Your task to perform on an android device: Open calendar and show me the third week of next month Image 0: 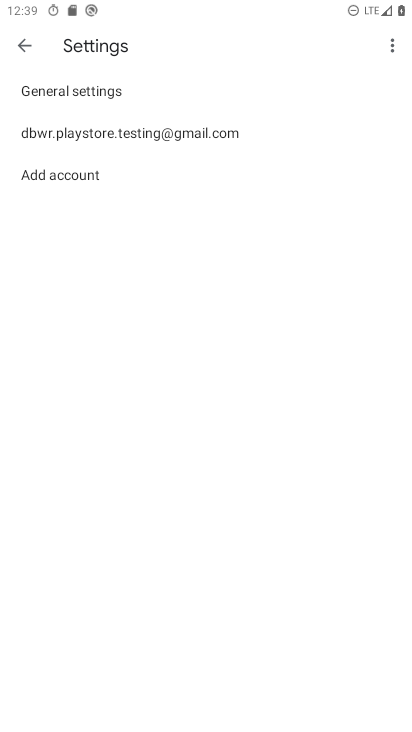
Step 0: drag from (280, 679) to (335, 160)
Your task to perform on an android device: Open calendar and show me the third week of next month Image 1: 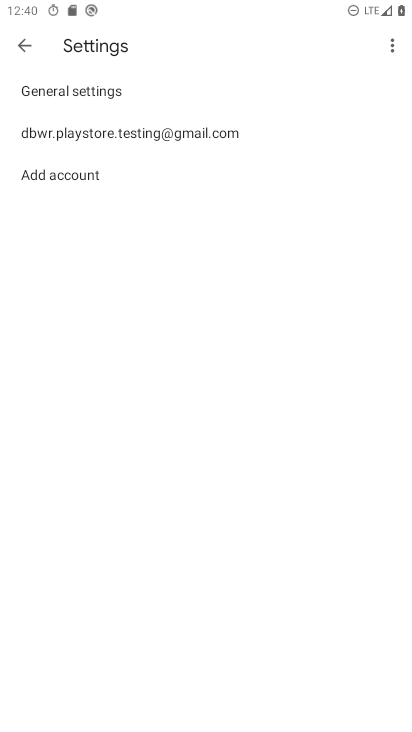
Step 1: press home button
Your task to perform on an android device: Open calendar and show me the third week of next month Image 2: 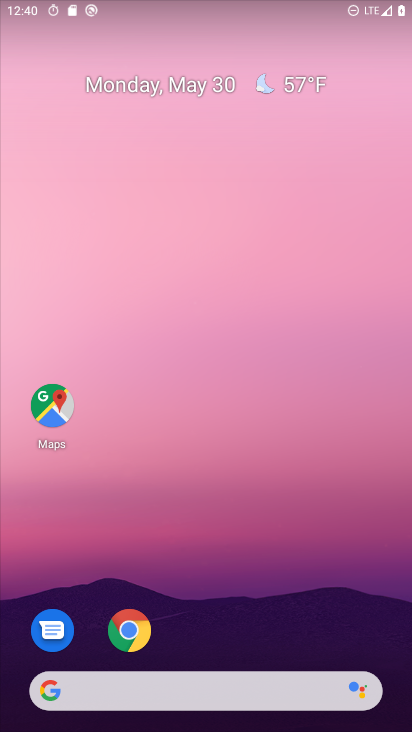
Step 2: drag from (242, 685) to (324, 123)
Your task to perform on an android device: Open calendar and show me the third week of next month Image 3: 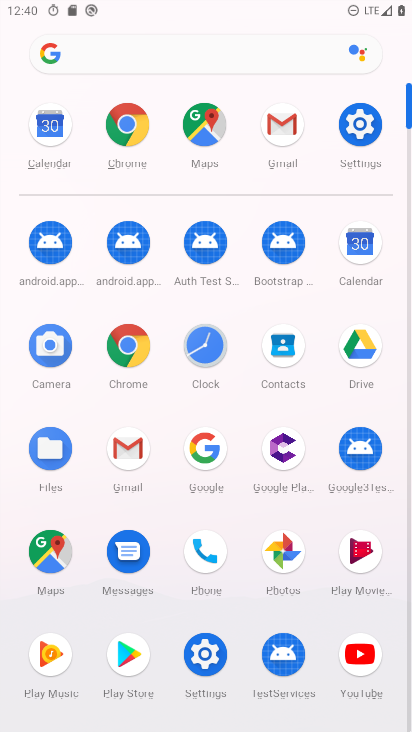
Step 3: click (355, 250)
Your task to perform on an android device: Open calendar and show me the third week of next month Image 4: 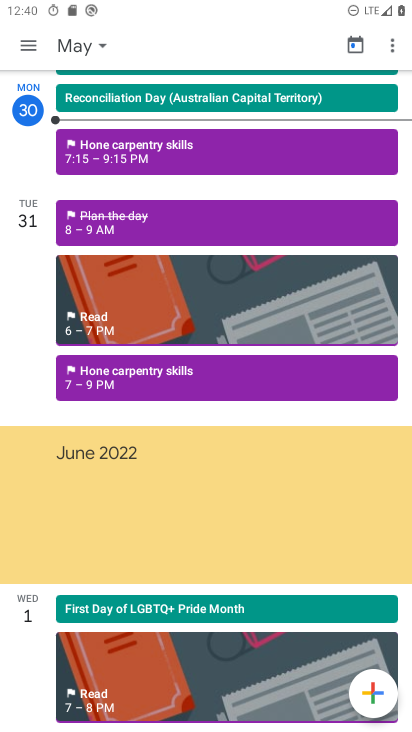
Step 4: click (23, 46)
Your task to perform on an android device: Open calendar and show me the third week of next month Image 5: 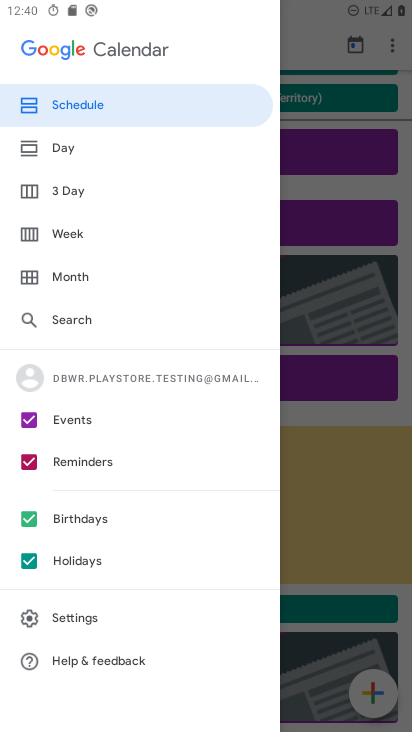
Step 5: click (67, 280)
Your task to perform on an android device: Open calendar and show me the third week of next month Image 6: 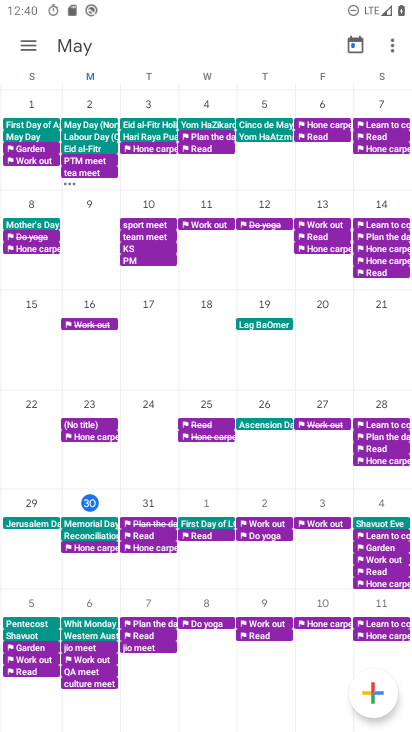
Step 6: drag from (365, 390) to (0, 305)
Your task to perform on an android device: Open calendar and show me the third week of next month Image 7: 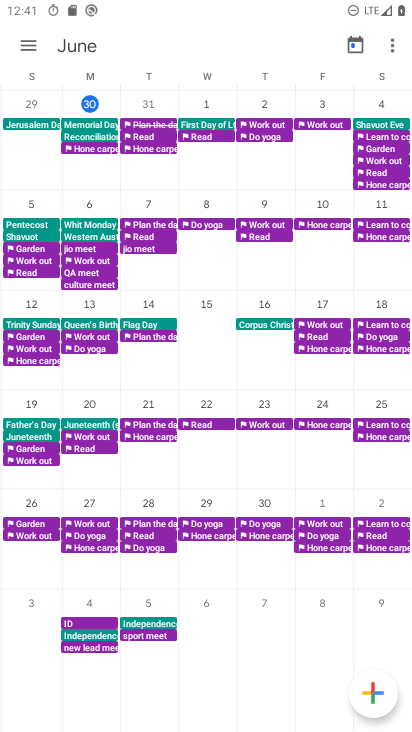
Step 7: click (86, 367)
Your task to perform on an android device: Open calendar and show me the third week of next month Image 8: 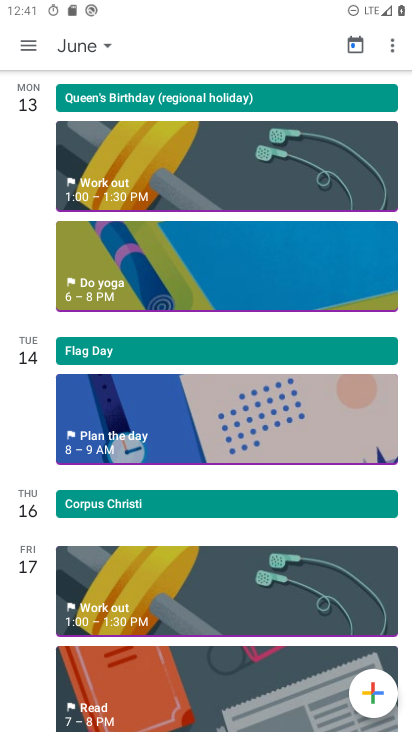
Step 8: task complete